Your task to perform on an android device: see creations saved in the google photos Image 0: 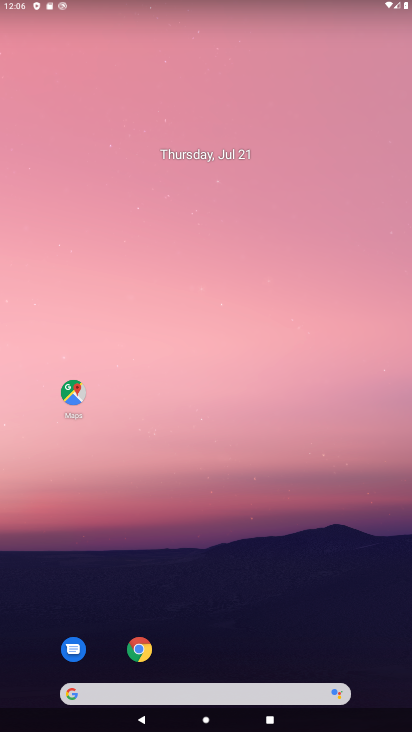
Step 0: drag from (231, 670) to (238, 261)
Your task to perform on an android device: see creations saved in the google photos Image 1: 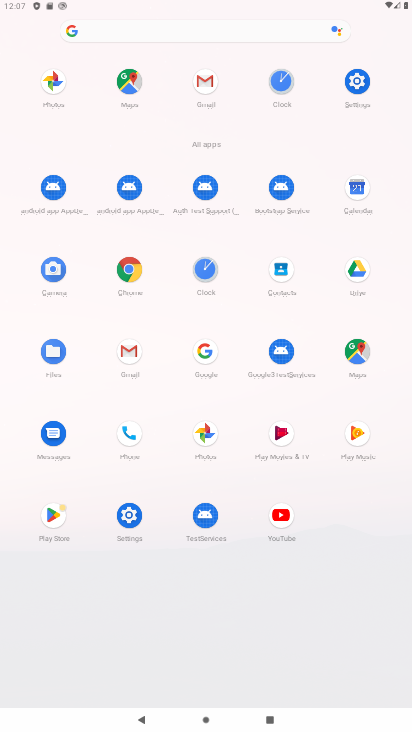
Step 1: click (204, 435)
Your task to perform on an android device: see creations saved in the google photos Image 2: 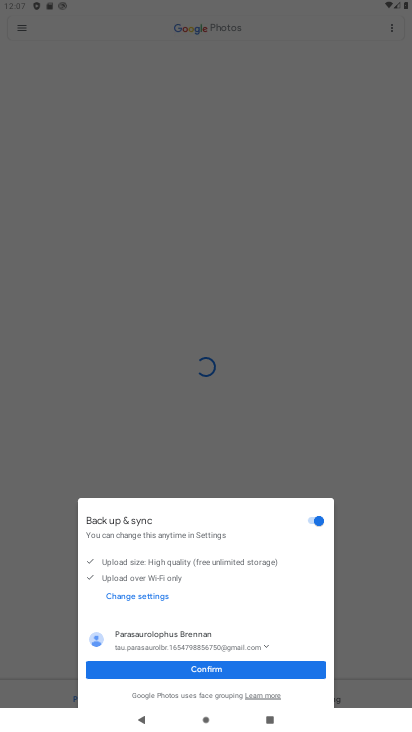
Step 2: click (214, 672)
Your task to perform on an android device: see creations saved in the google photos Image 3: 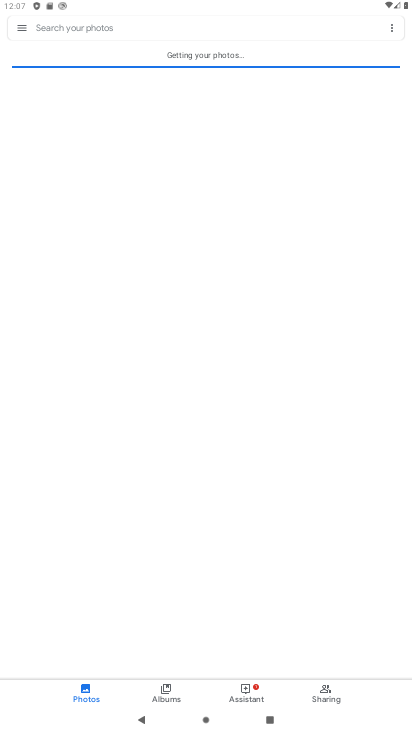
Step 3: click (95, 26)
Your task to perform on an android device: see creations saved in the google photos Image 4: 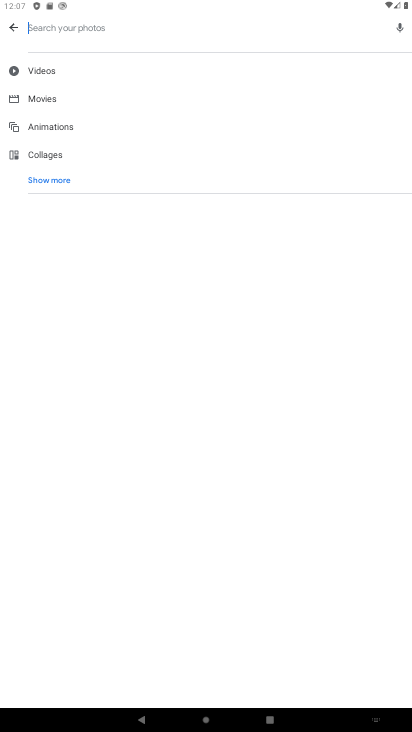
Step 4: click (52, 178)
Your task to perform on an android device: see creations saved in the google photos Image 5: 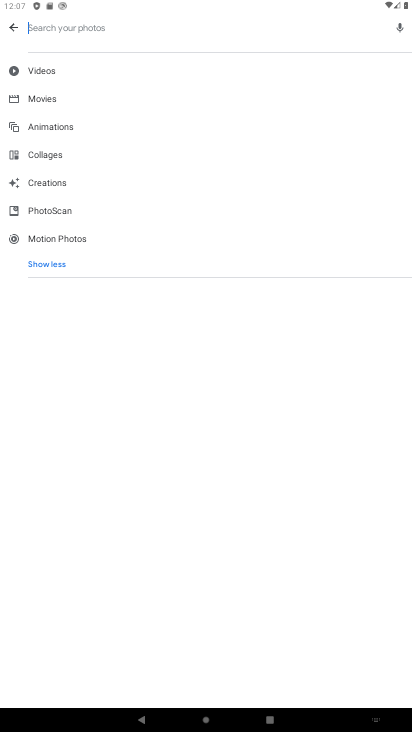
Step 5: click (57, 180)
Your task to perform on an android device: see creations saved in the google photos Image 6: 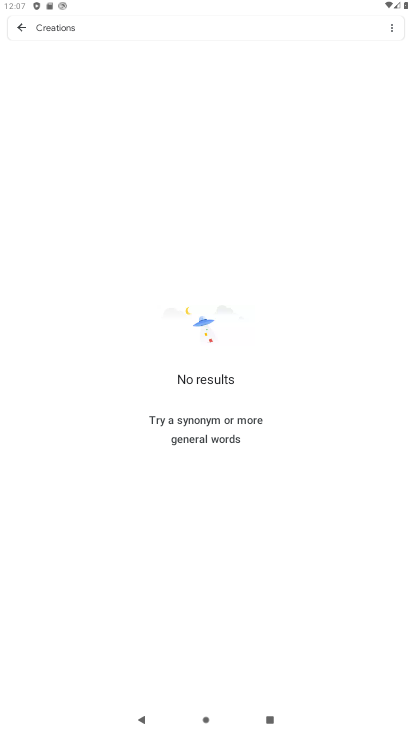
Step 6: task complete